Your task to perform on an android device: empty trash in the gmail app Image 0: 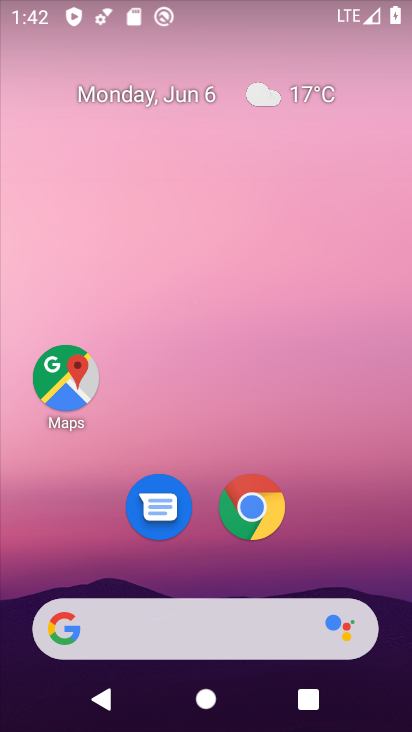
Step 0: drag from (399, 607) to (213, 160)
Your task to perform on an android device: empty trash in the gmail app Image 1: 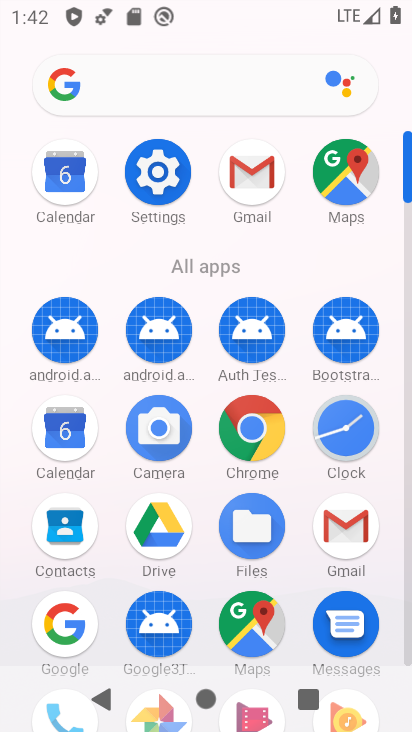
Step 1: click (269, 175)
Your task to perform on an android device: empty trash in the gmail app Image 2: 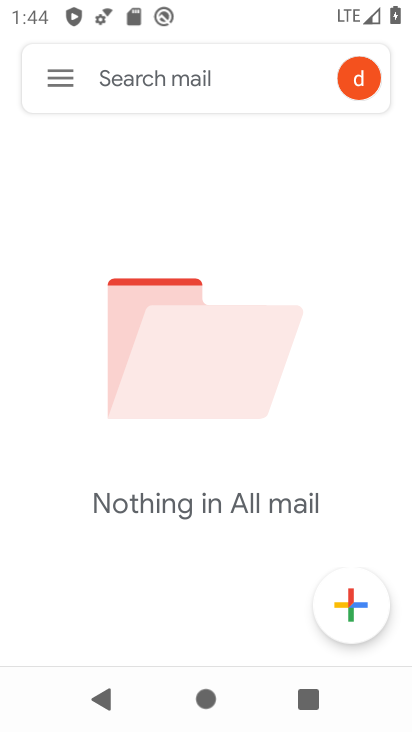
Step 2: click (62, 81)
Your task to perform on an android device: empty trash in the gmail app Image 3: 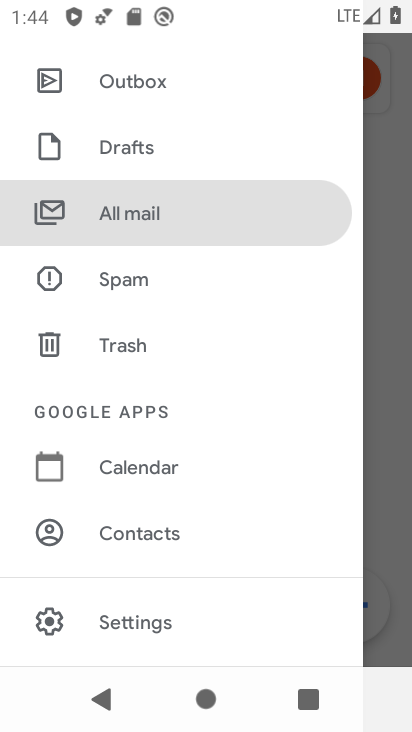
Step 3: click (183, 365)
Your task to perform on an android device: empty trash in the gmail app Image 4: 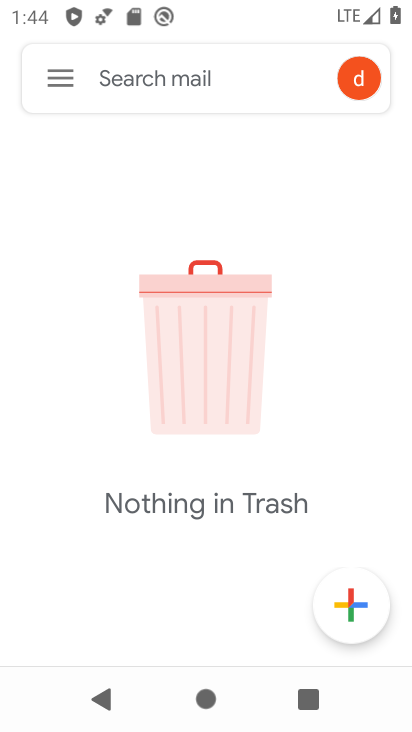
Step 4: task complete